Your task to perform on an android device: open app "Reddit" Image 0: 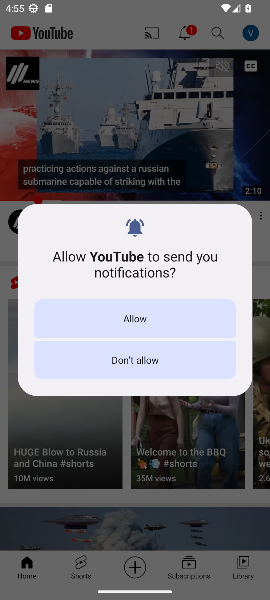
Step 0: click (104, 303)
Your task to perform on an android device: open app "Reddit" Image 1: 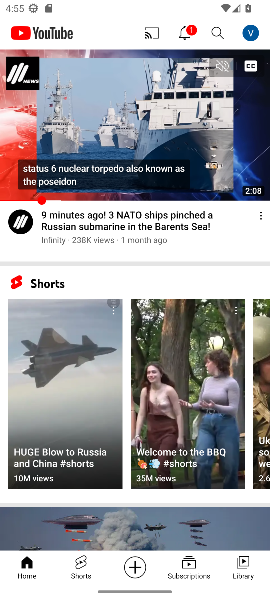
Step 1: press home button
Your task to perform on an android device: open app "Reddit" Image 2: 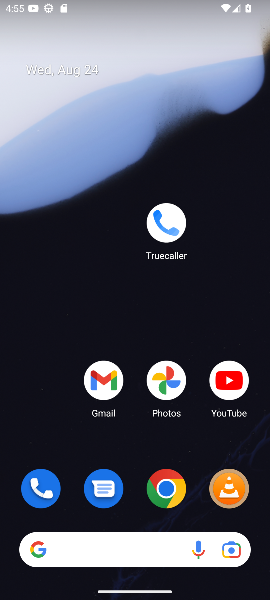
Step 2: click (239, 381)
Your task to perform on an android device: open app "Reddit" Image 3: 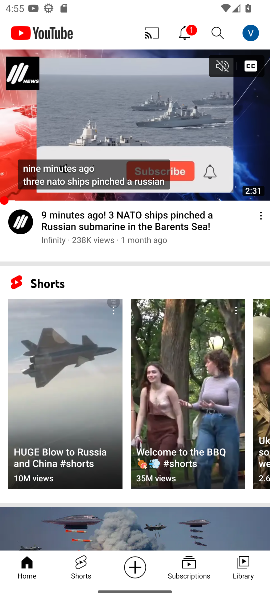
Step 3: press home button
Your task to perform on an android device: open app "Reddit" Image 4: 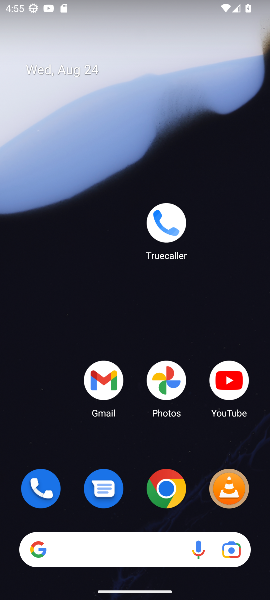
Step 4: drag from (135, 515) to (121, 115)
Your task to perform on an android device: open app "Reddit" Image 5: 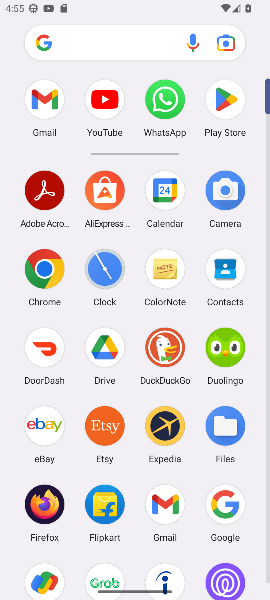
Step 5: click (217, 86)
Your task to perform on an android device: open app "Reddit" Image 6: 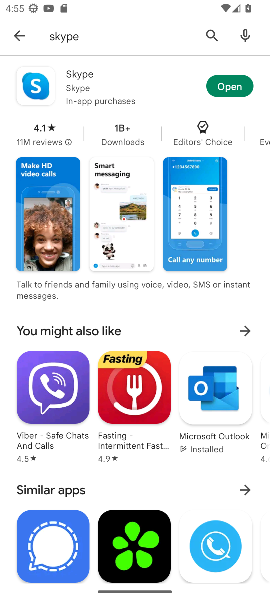
Step 6: click (213, 40)
Your task to perform on an android device: open app "Reddit" Image 7: 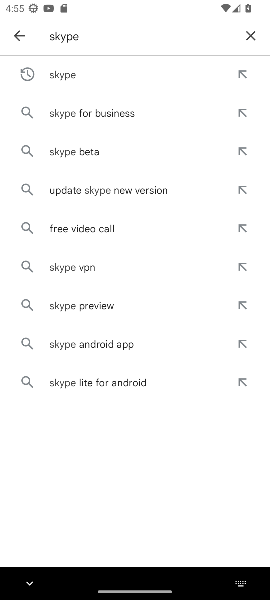
Step 7: click (243, 40)
Your task to perform on an android device: open app "Reddit" Image 8: 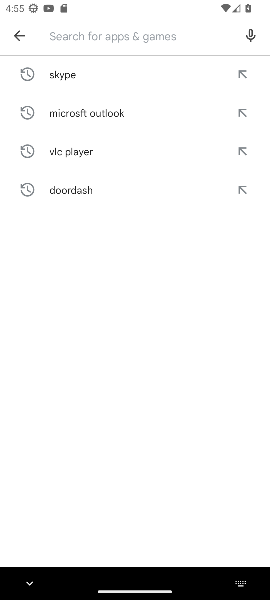
Step 8: type "reddit"
Your task to perform on an android device: open app "Reddit" Image 9: 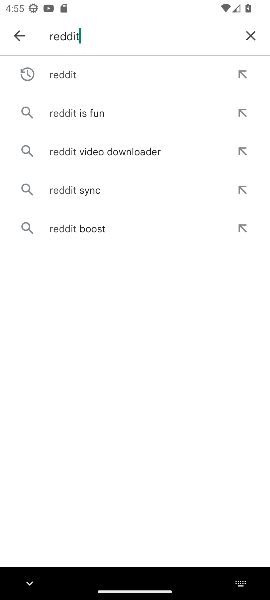
Step 9: click (98, 73)
Your task to perform on an android device: open app "Reddit" Image 10: 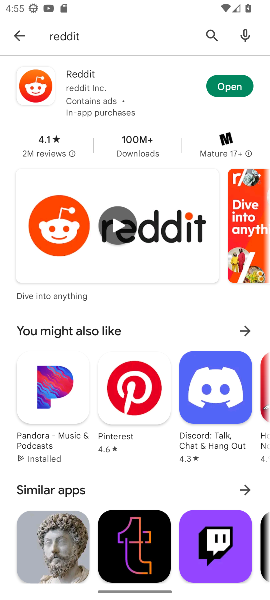
Step 10: click (233, 81)
Your task to perform on an android device: open app "Reddit" Image 11: 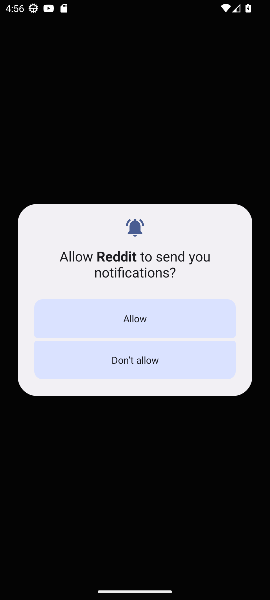
Step 11: press home button
Your task to perform on an android device: open app "Reddit" Image 12: 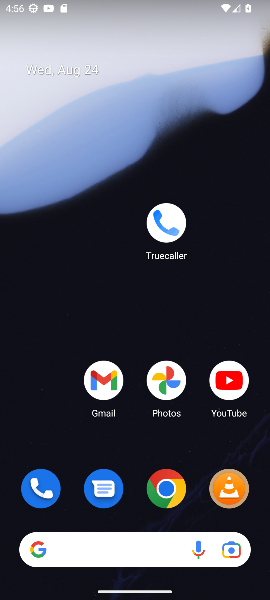
Step 12: drag from (127, 510) to (117, 22)
Your task to perform on an android device: open app "Reddit" Image 13: 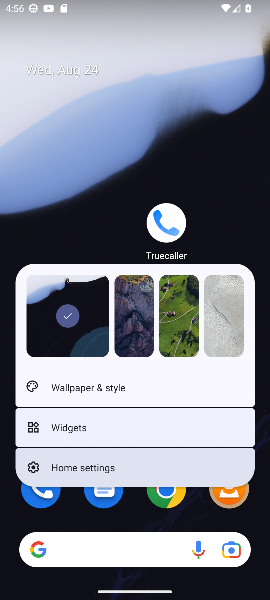
Step 13: click (122, 125)
Your task to perform on an android device: open app "Reddit" Image 14: 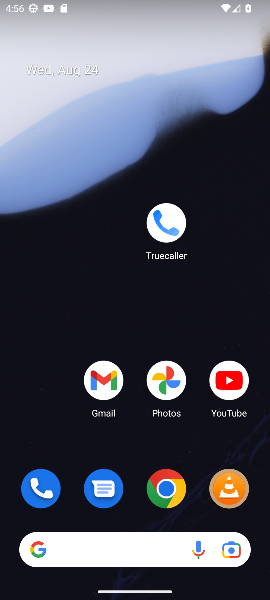
Step 14: drag from (135, 524) to (120, 129)
Your task to perform on an android device: open app "Reddit" Image 15: 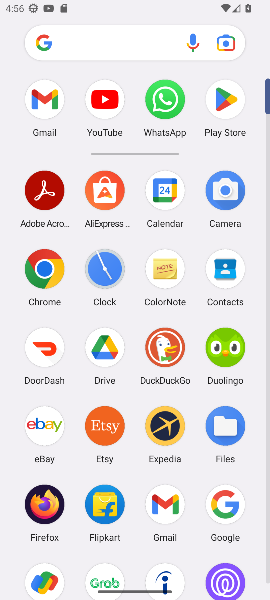
Step 15: click (216, 97)
Your task to perform on an android device: open app "Reddit" Image 16: 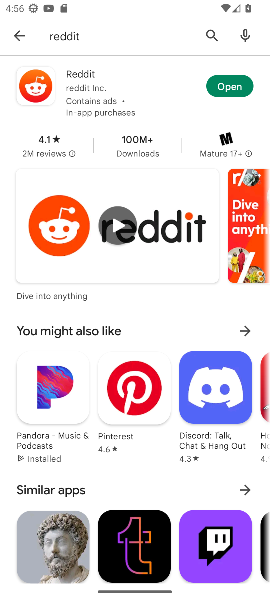
Step 16: click (216, 47)
Your task to perform on an android device: open app "Reddit" Image 17: 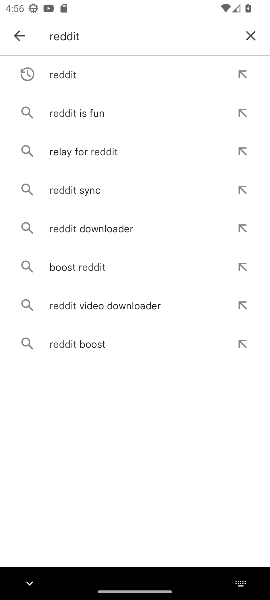
Step 17: click (246, 38)
Your task to perform on an android device: open app "Reddit" Image 18: 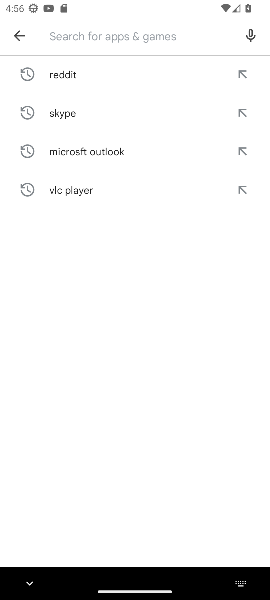
Step 18: type "reddit"
Your task to perform on an android device: open app "Reddit" Image 19: 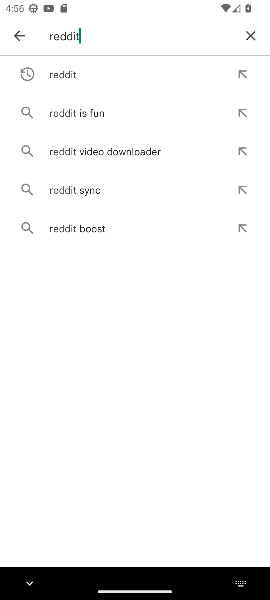
Step 19: click (94, 65)
Your task to perform on an android device: open app "Reddit" Image 20: 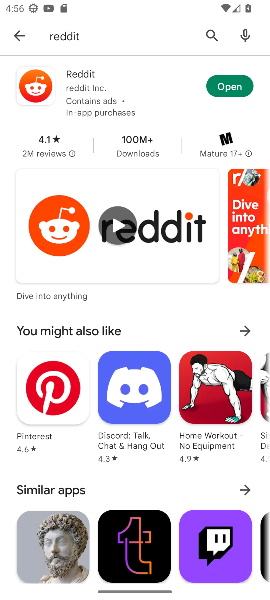
Step 20: click (222, 79)
Your task to perform on an android device: open app "Reddit" Image 21: 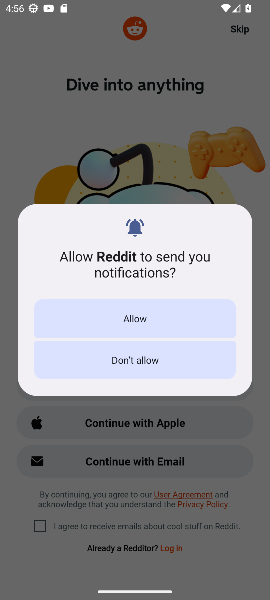
Step 21: task complete